Your task to perform on an android device: open chrome privacy settings Image 0: 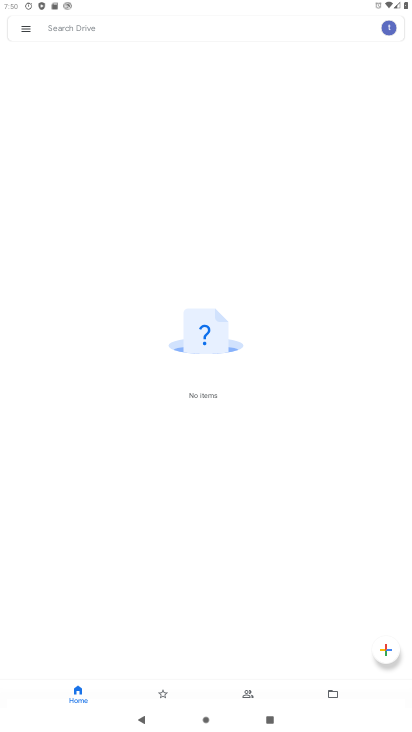
Step 0: press home button
Your task to perform on an android device: open chrome privacy settings Image 1: 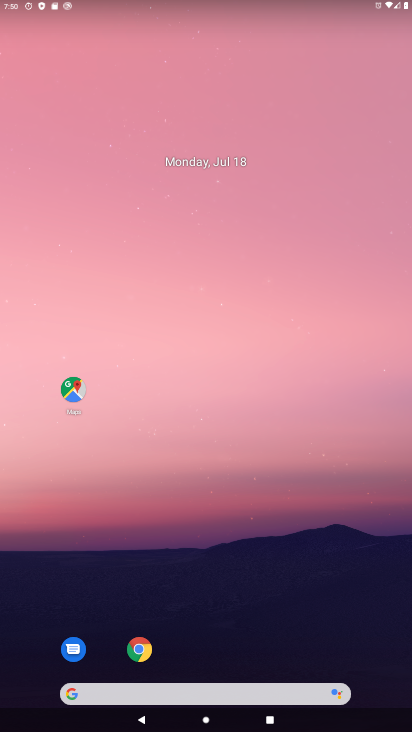
Step 1: drag from (339, 518) to (270, 76)
Your task to perform on an android device: open chrome privacy settings Image 2: 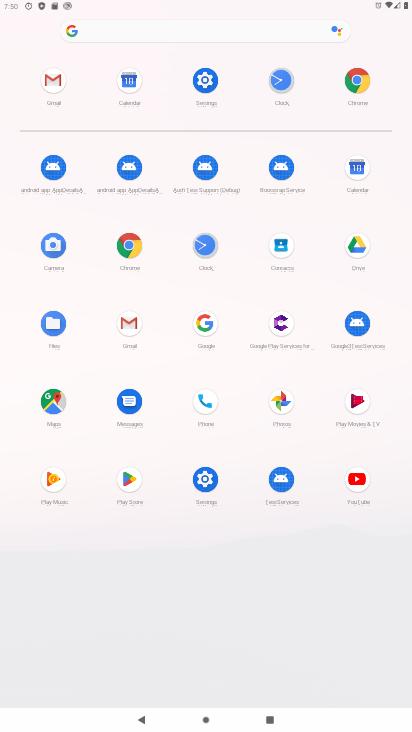
Step 2: click (203, 84)
Your task to perform on an android device: open chrome privacy settings Image 3: 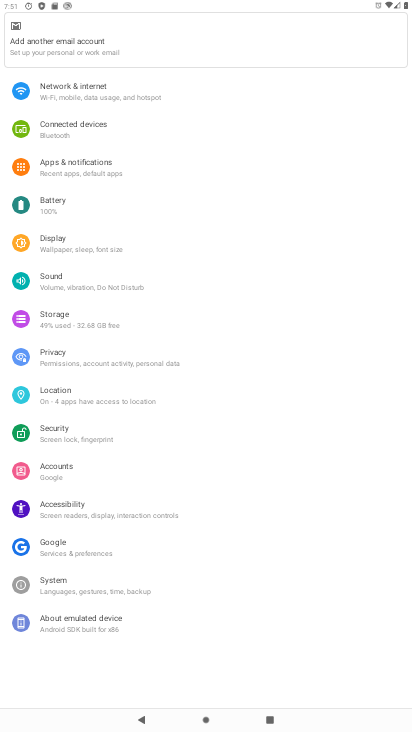
Step 3: click (57, 351)
Your task to perform on an android device: open chrome privacy settings Image 4: 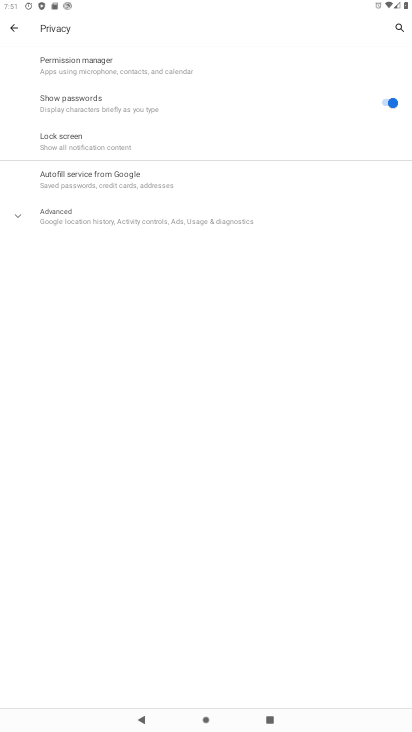
Step 4: press home button
Your task to perform on an android device: open chrome privacy settings Image 5: 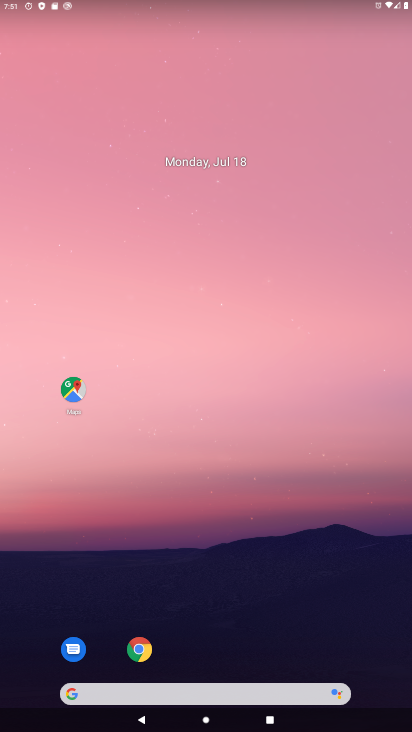
Step 5: drag from (346, 657) to (328, 98)
Your task to perform on an android device: open chrome privacy settings Image 6: 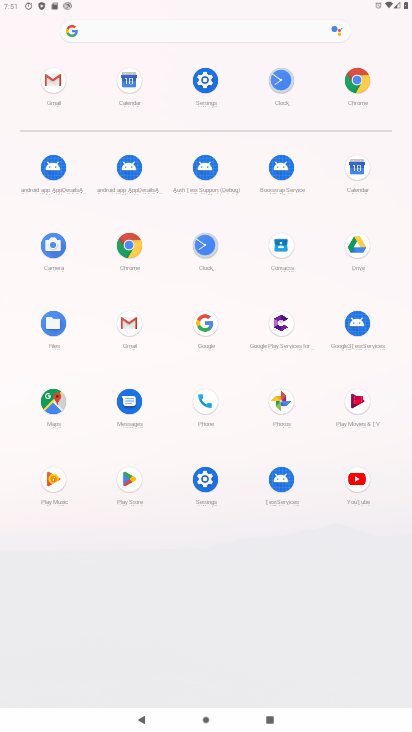
Step 6: click (133, 247)
Your task to perform on an android device: open chrome privacy settings Image 7: 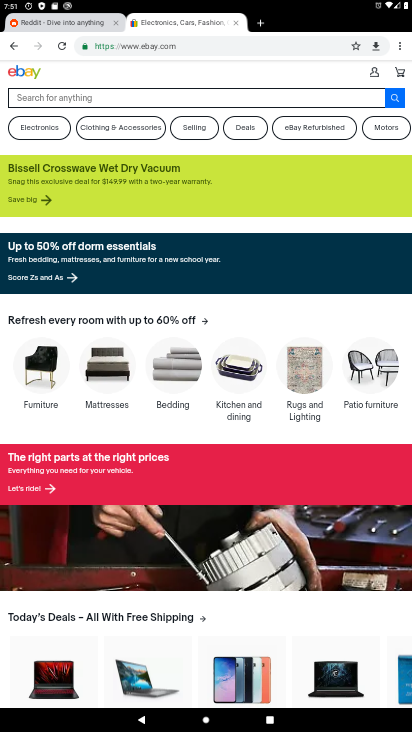
Step 7: drag from (399, 44) to (304, 334)
Your task to perform on an android device: open chrome privacy settings Image 8: 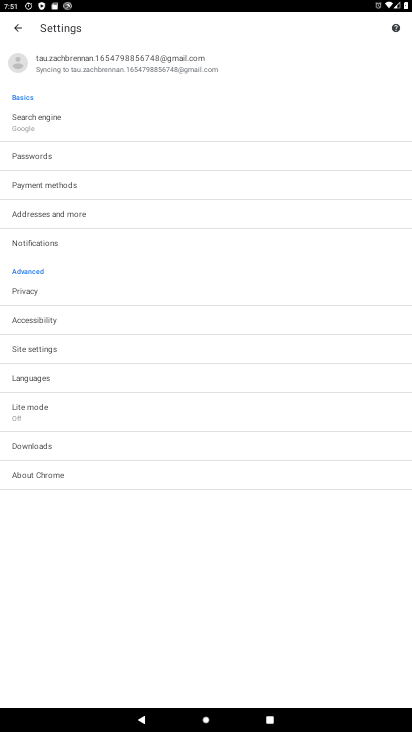
Step 8: click (26, 293)
Your task to perform on an android device: open chrome privacy settings Image 9: 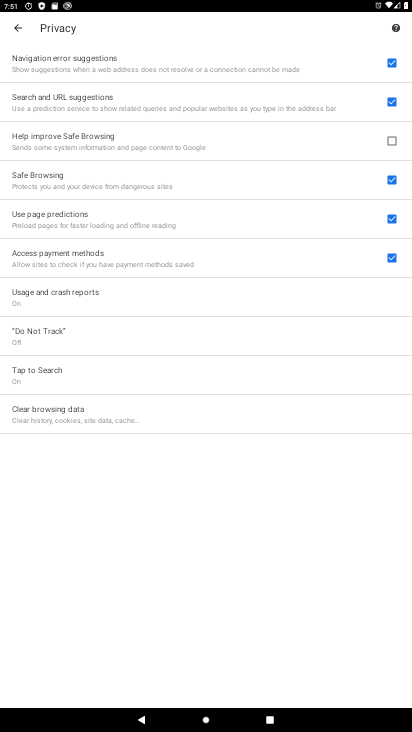
Step 9: task complete